Your task to perform on an android device: open chrome privacy settings Image 0: 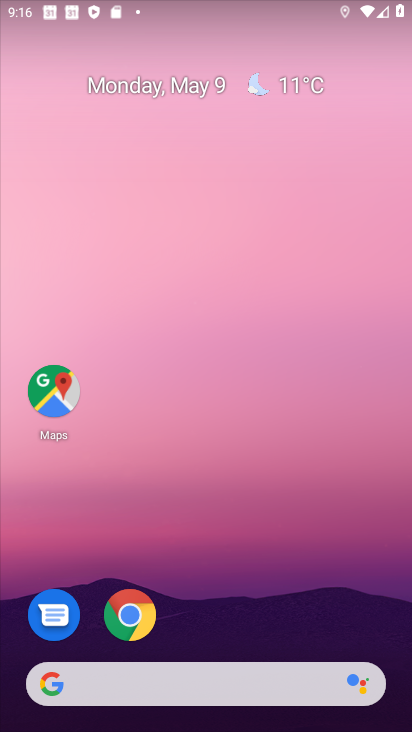
Step 0: drag from (251, 567) to (194, 12)
Your task to perform on an android device: open chrome privacy settings Image 1: 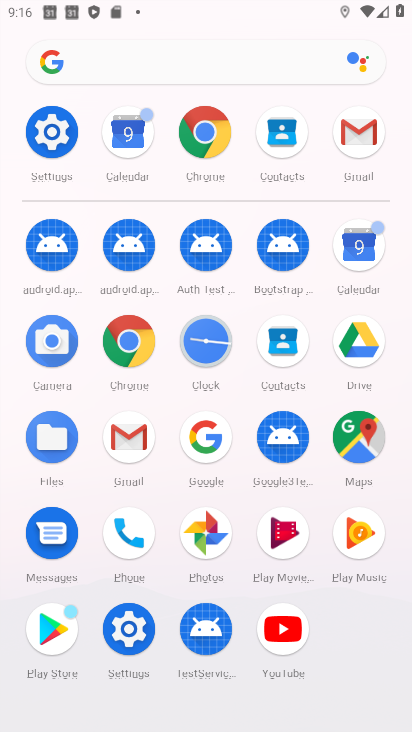
Step 1: click (126, 343)
Your task to perform on an android device: open chrome privacy settings Image 2: 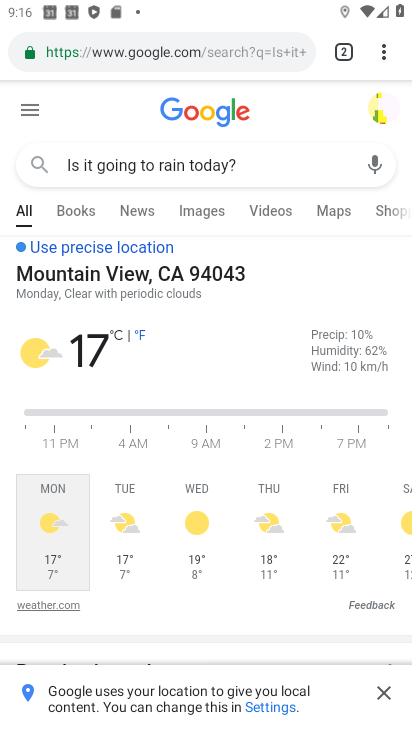
Step 2: drag from (385, 55) to (227, 583)
Your task to perform on an android device: open chrome privacy settings Image 3: 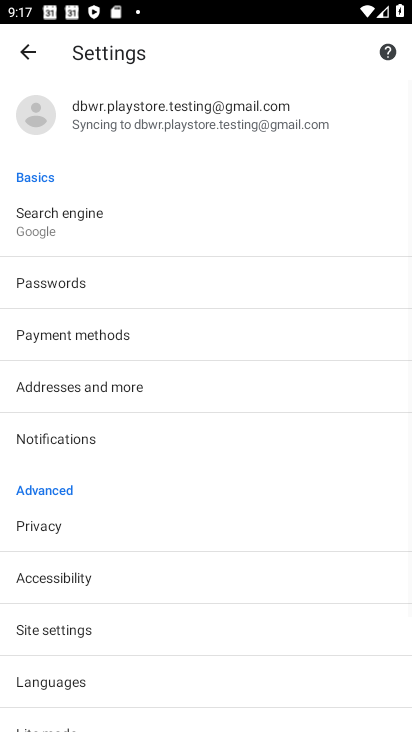
Step 3: click (63, 534)
Your task to perform on an android device: open chrome privacy settings Image 4: 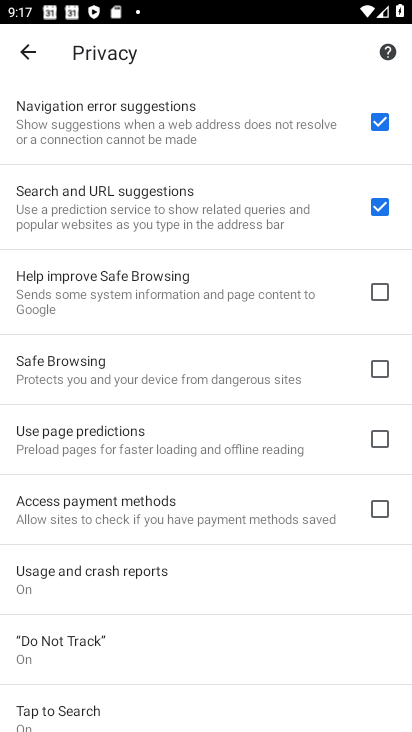
Step 4: task complete